Your task to perform on an android device: Clear the cart on costco. Search for razer kraken on costco, select the first entry, add it to the cart, then select checkout. Image 0: 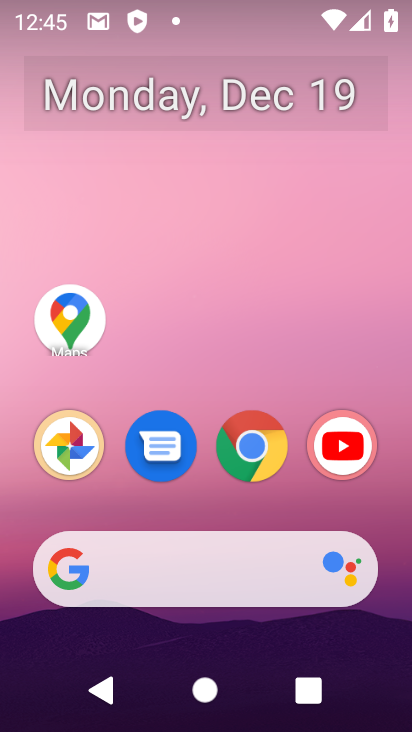
Step 0: click (262, 425)
Your task to perform on an android device: Clear the cart on costco. Search for razer kraken on costco, select the first entry, add it to the cart, then select checkout. Image 1: 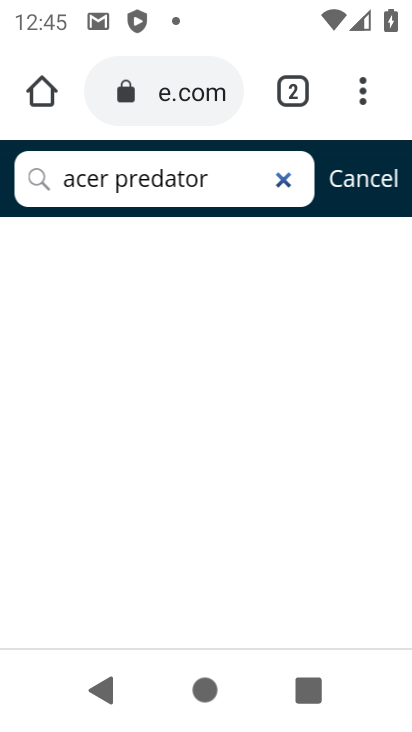
Step 1: click (205, 94)
Your task to perform on an android device: Clear the cart on costco. Search for razer kraken on costco, select the first entry, add it to the cart, then select checkout. Image 2: 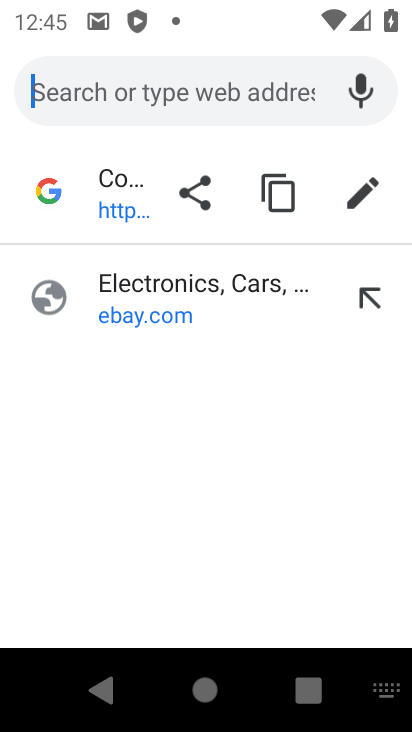
Step 2: type "costco"
Your task to perform on an android device: Clear the cart on costco. Search for razer kraken on costco, select the first entry, add it to the cart, then select checkout. Image 3: 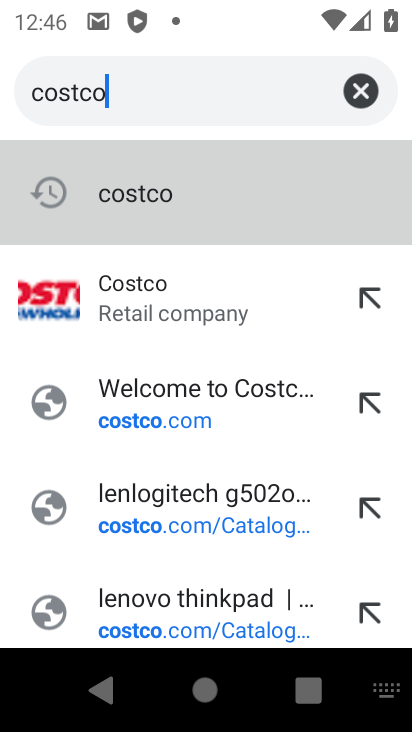
Step 3: click (179, 297)
Your task to perform on an android device: Clear the cart on costco. Search for razer kraken on costco, select the first entry, add it to the cart, then select checkout. Image 4: 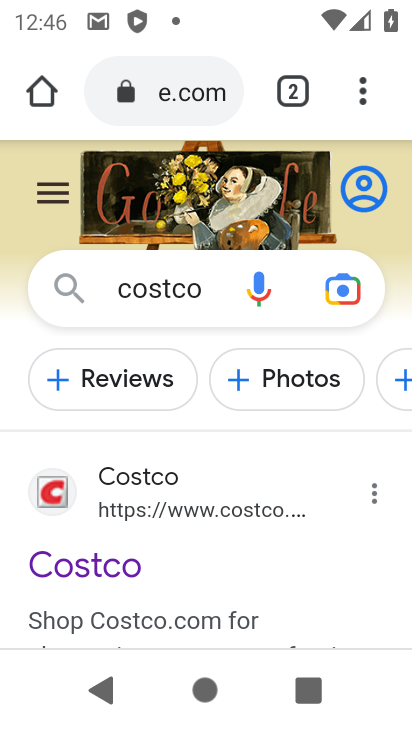
Step 4: click (98, 574)
Your task to perform on an android device: Clear the cart on costco. Search for razer kraken on costco, select the first entry, add it to the cart, then select checkout. Image 5: 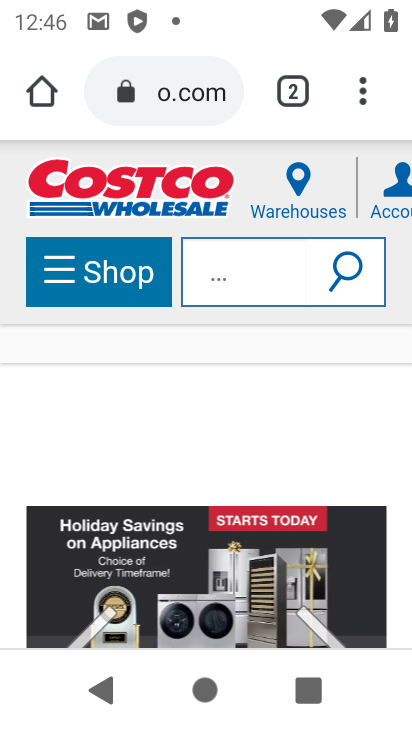
Step 5: click (228, 285)
Your task to perform on an android device: Clear the cart on costco. Search for razer kraken on costco, select the first entry, add it to the cart, then select checkout. Image 6: 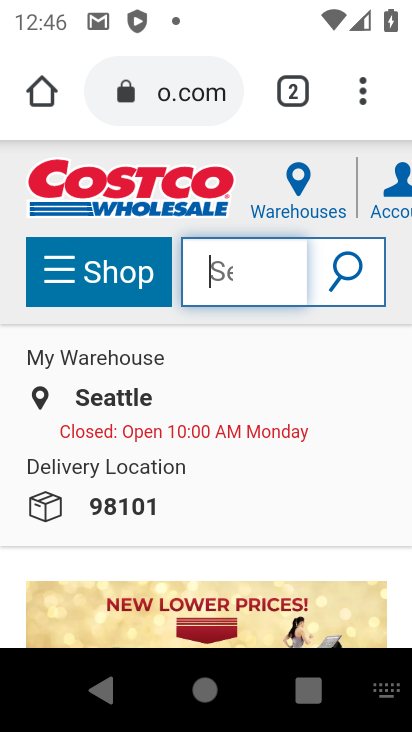
Step 6: type "razer karken"
Your task to perform on an android device: Clear the cart on costco. Search for razer kraken on costco, select the first entry, add it to the cart, then select checkout. Image 7: 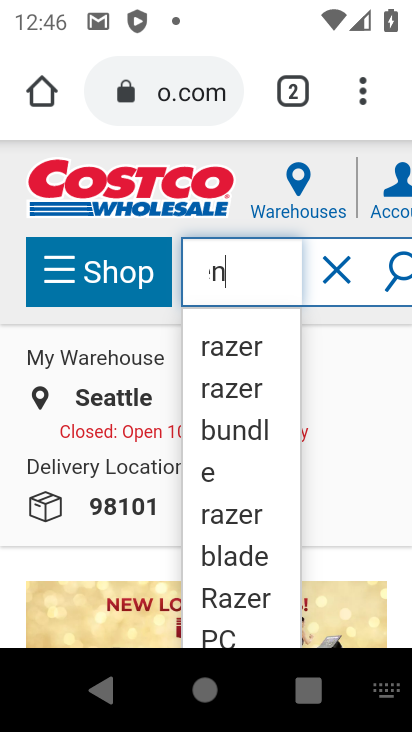
Step 7: click (408, 279)
Your task to perform on an android device: Clear the cart on costco. Search for razer kraken on costco, select the first entry, add it to the cart, then select checkout. Image 8: 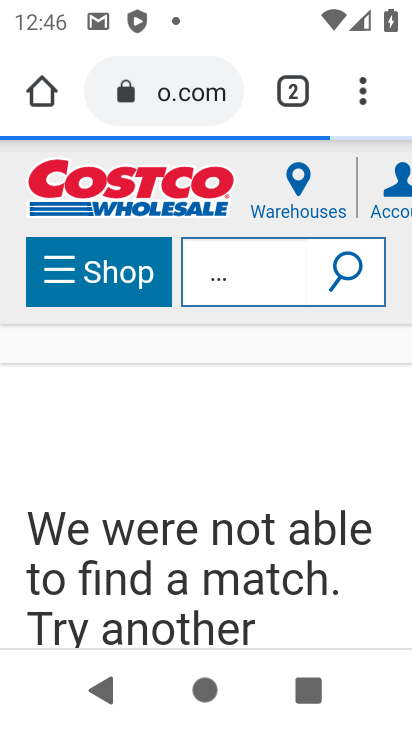
Step 8: task complete